Your task to perform on an android device: Open Android settings Image 0: 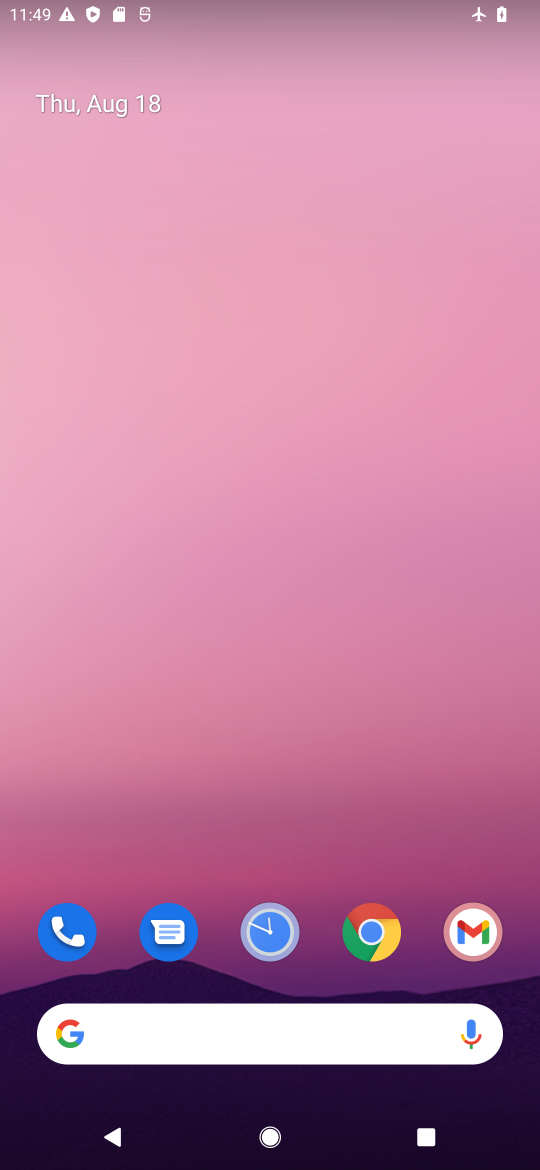
Step 0: drag from (218, 972) to (174, 259)
Your task to perform on an android device: Open Android settings Image 1: 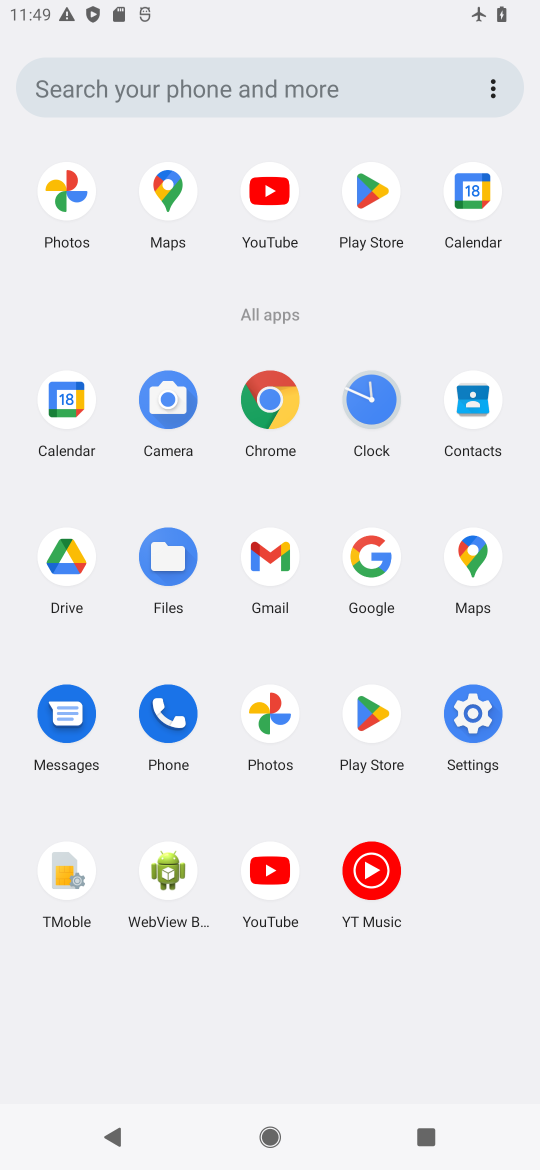
Step 1: click (470, 706)
Your task to perform on an android device: Open Android settings Image 2: 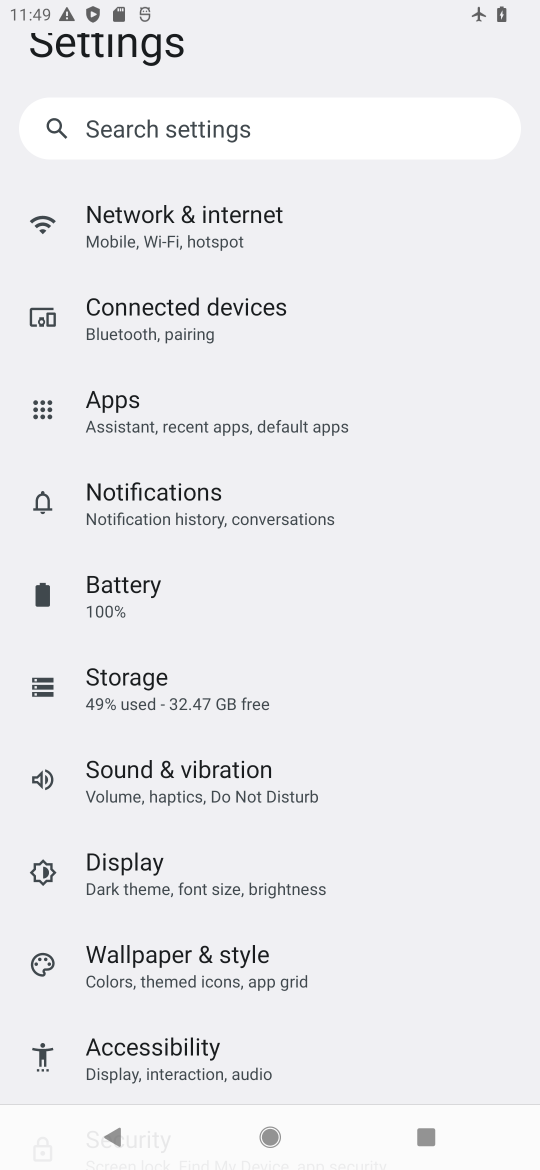
Step 2: task complete